Your task to perform on an android device: Open network settings Image 0: 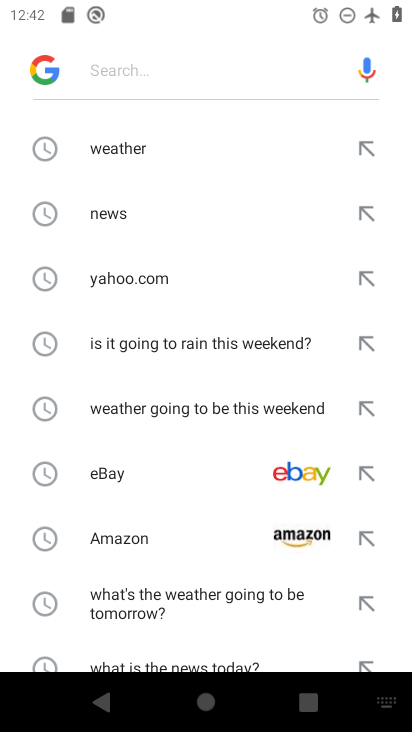
Step 0: press home button
Your task to perform on an android device: Open network settings Image 1: 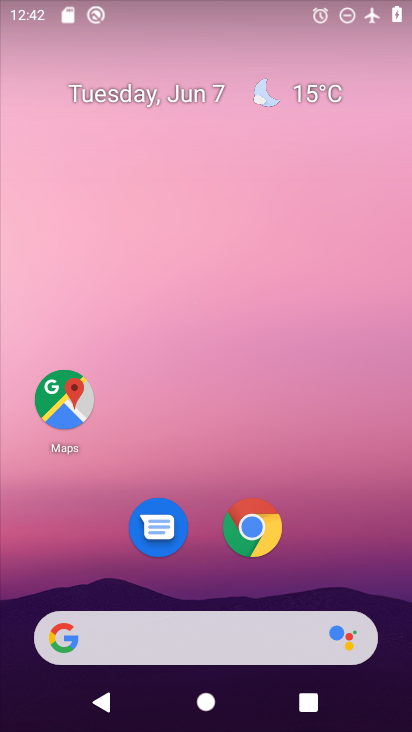
Step 1: drag from (338, 546) to (353, 75)
Your task to perform on an android device: Open network settings Image 2: 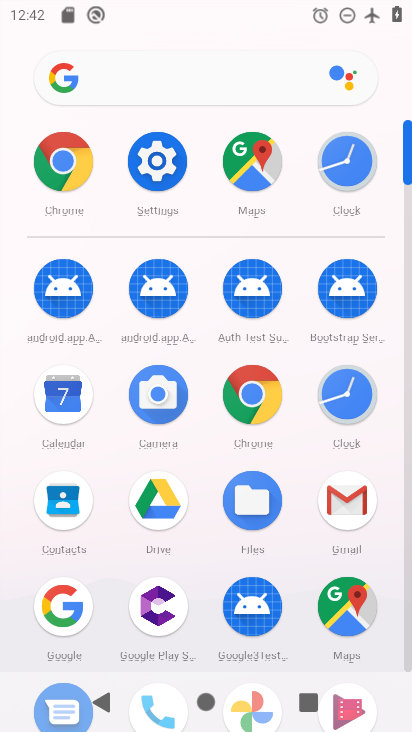
Step 2: click (170, 176)
Your task to perform on an android device: Open network settings Image 3: 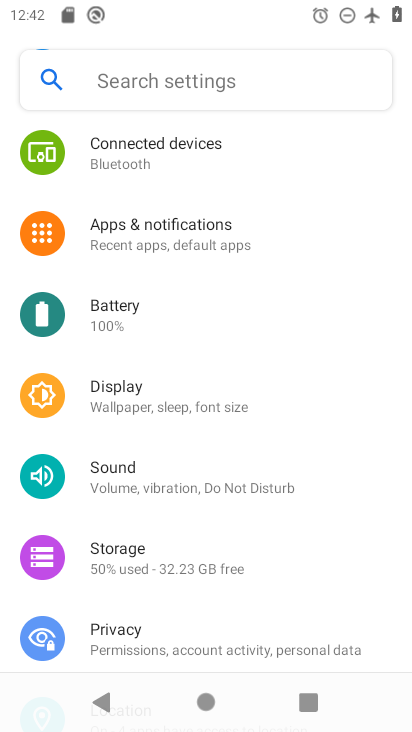
Step 3: drag from (341, 451) to (344, 302)
Your task to perform on an android device: Open network settings Image 4: 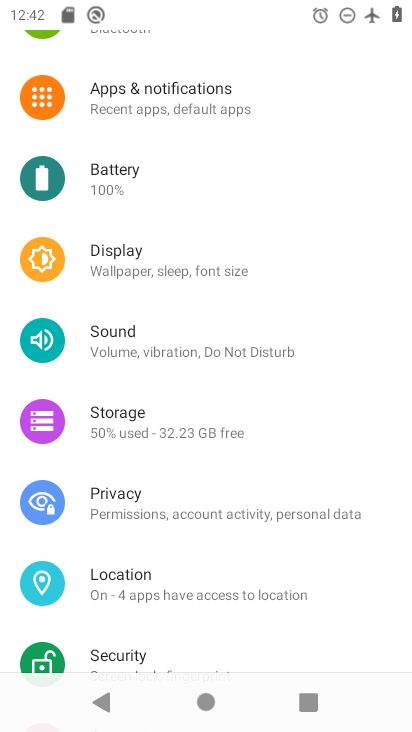
Step 4: drag from (350, 461) to (350, 306)
Your task to perform on an android device: Open network settings Image 5: 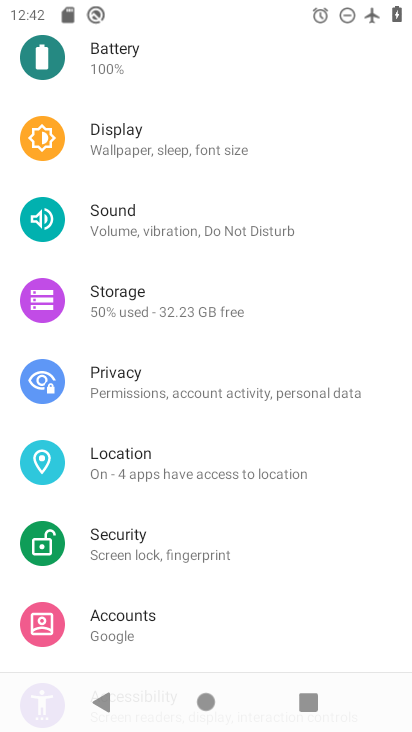
Step 5: drag from (350, 486) to (351, 283)
Your task to perform on an android device: Open network settings Image 6: 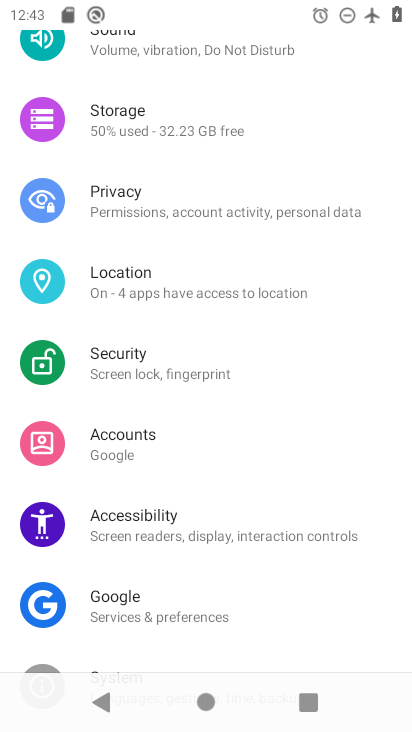
Step 6: drag from (347, 373) to (348, 238)
Your task to perform on an android device: Open network settings Image 7: 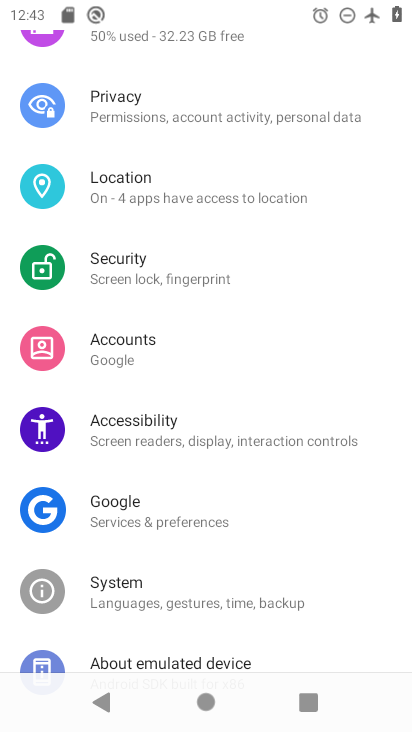
Step 7: drag from (352, 352) to (340, 225)
Your task to perform on an android device: Open network settings Image 8: 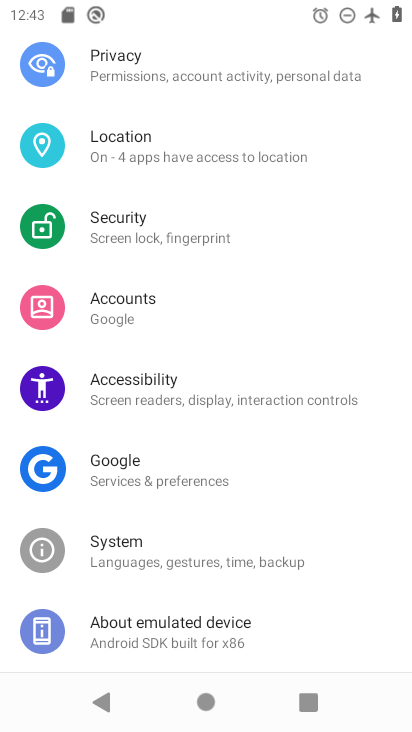
Step 8: drag from (337, 130) to (337, 296)
Your task to perform on an android device: Open network settings Image 9: 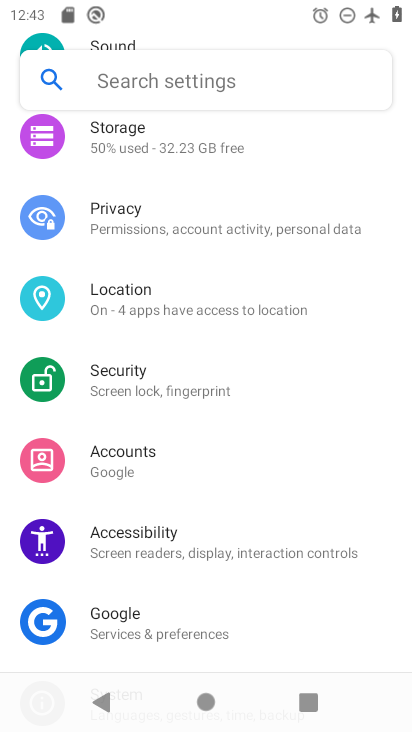
Step 9: drag from (335, 170) to (339, 297)
Your task to perform on an android device: Open network settings Image 10: 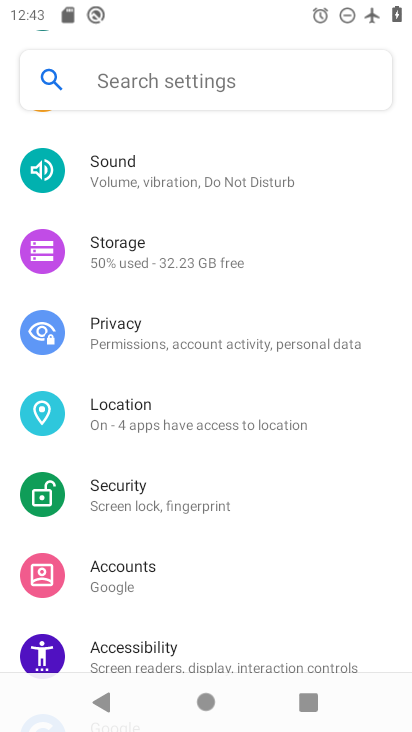
Step 10: drag from (327, 148) to (333, 269)
Your task to perform on an android device: Open network settings Image 11: 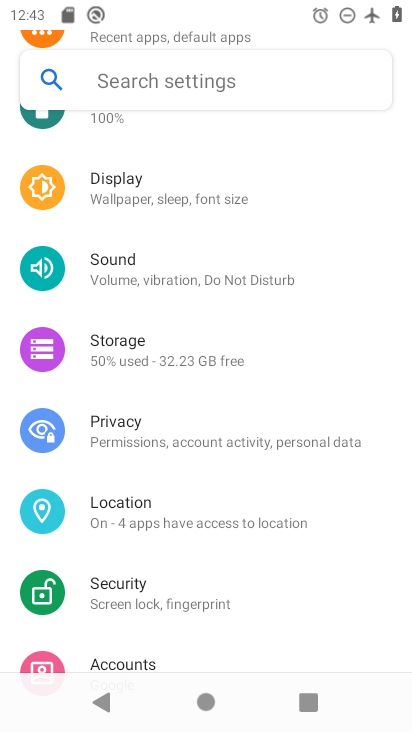
Step 11: drag from (330, 156) to (333, 286)
Your task to perform on an android device: Open network settings Image 12: 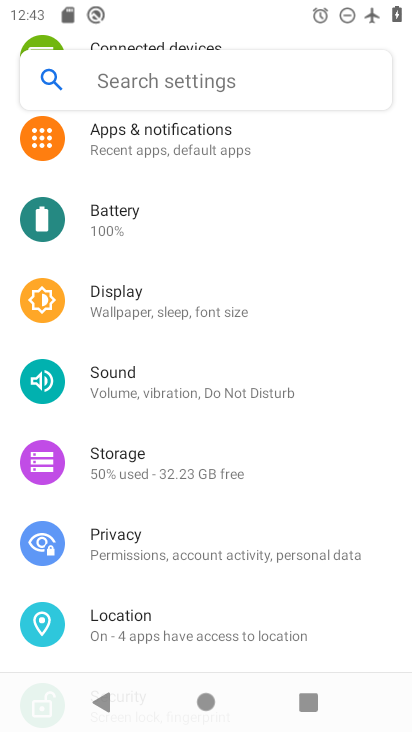
Step 12: drag from (345, 158) to (352, 363)
Your task to perform on an android device: Open network settings Image 13: 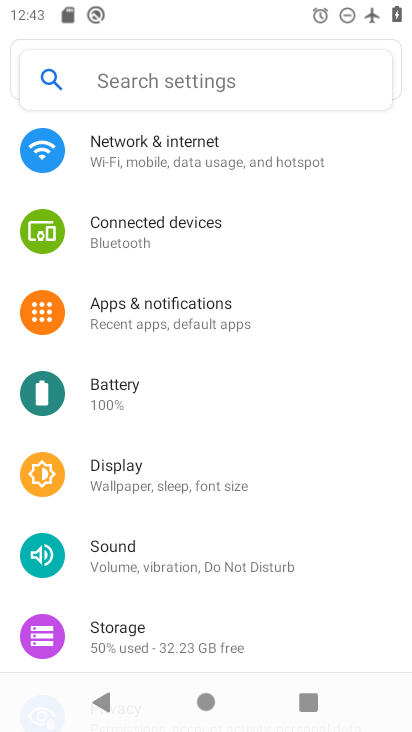
Step 13: click (253, 143)
Your task to perform on an android device: Open network settings Image 14: 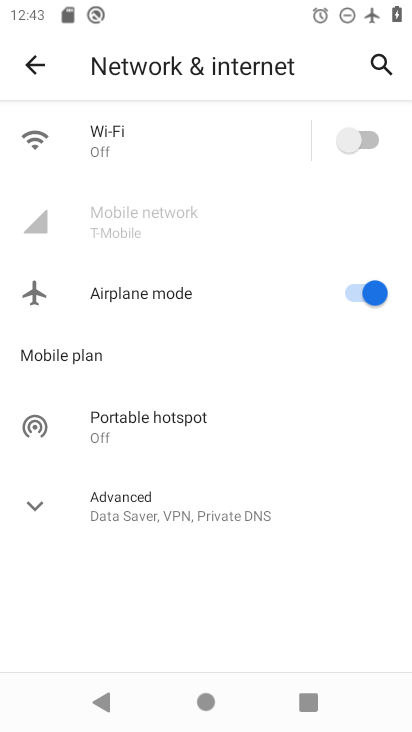
Step 14: task complete